Your task to perform on an android device: change text size in settings app Image 0: 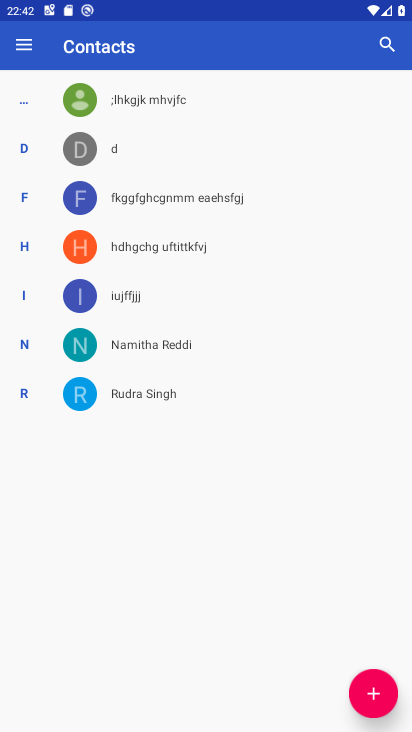
Step 0: press home button
Your task to perform on an android device: change text size in settings app Image 1: 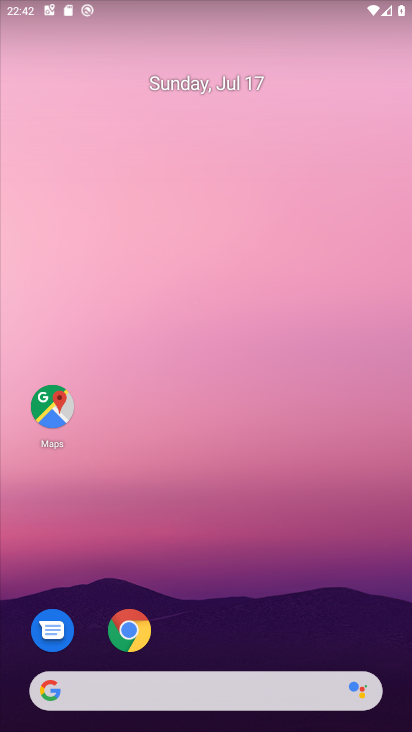
Step 1: drag from (220, 649) to (306, 15)
Your task to perform on an android device: change text size in settings app Image 2: 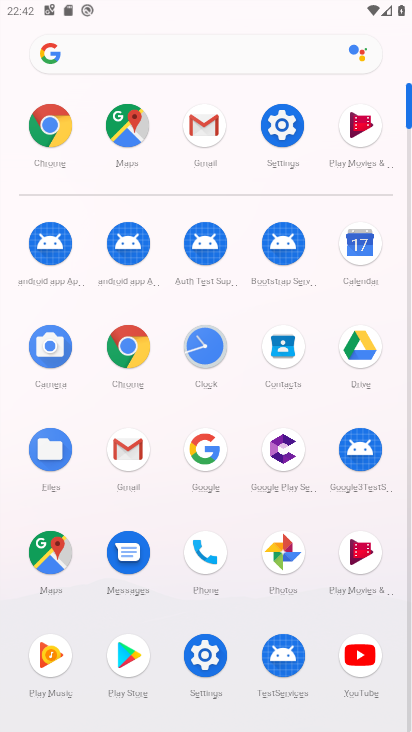
Step 2: click (207, 664)
Your task to perform on an android device: change text size in settings app Image 3: 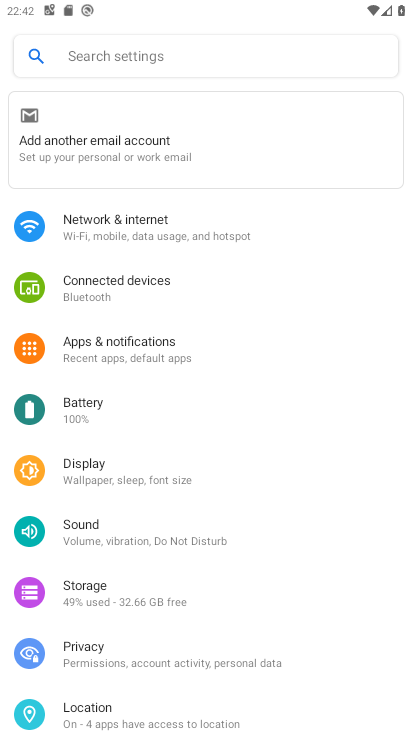
Step 3: click (101, 477)
Your task to perform on an android device: change text size in settings app Image 4: 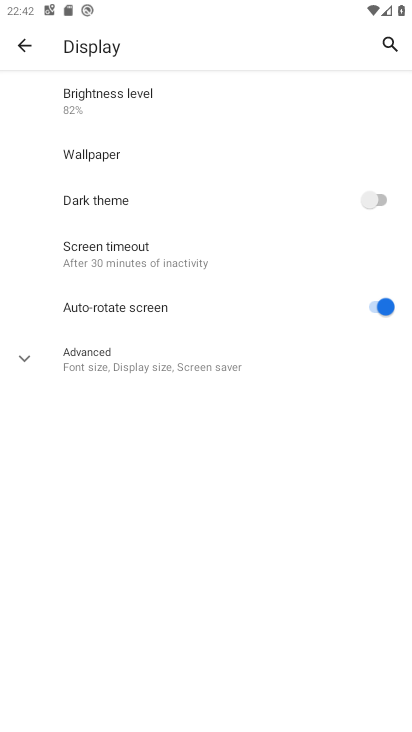
Step 4: click (101, 356)
Your task to perform on an android device: change text size in settings app Image 5: 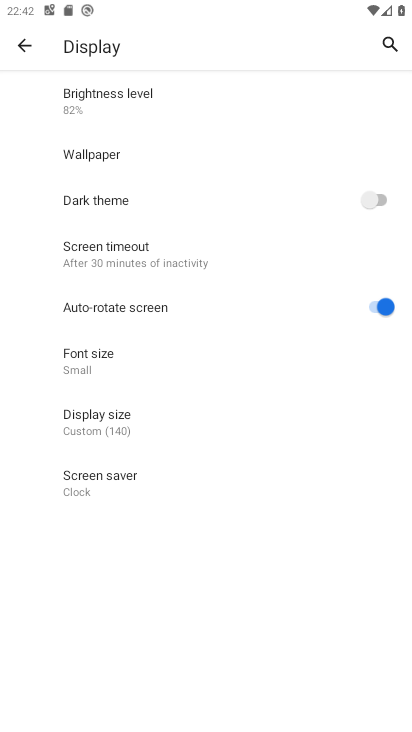
Step 5: click (83, 369)
Your task to perform on an android device: change text size in settings app Image 6: 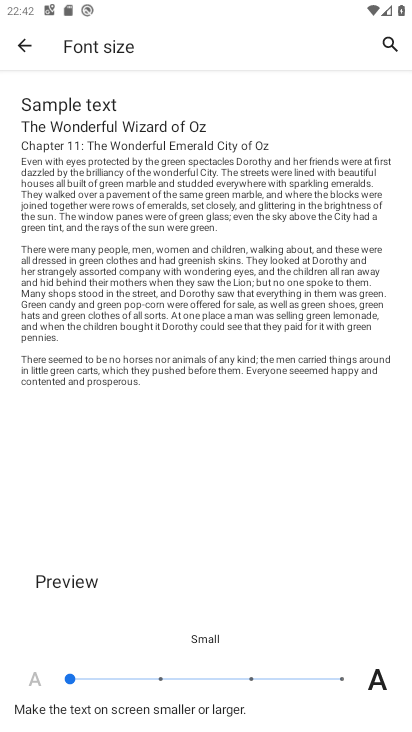
Step 6: click (247, 678)
Your task to perform on an android device: change text size in settings app Image 7: 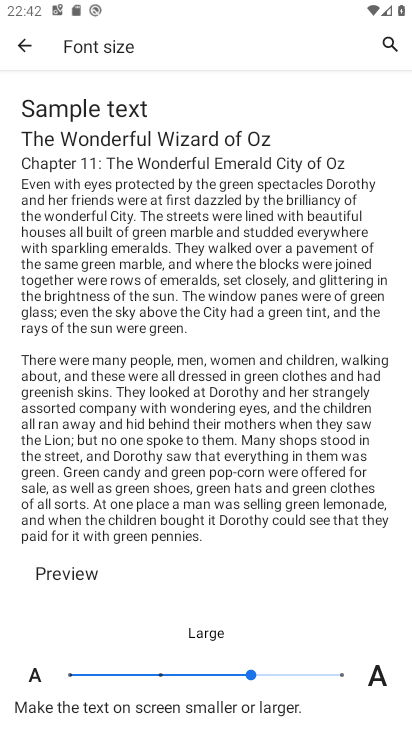
Step 7: task complete